Your task to perform on an android device: turn off notifications in google photos Image 0: 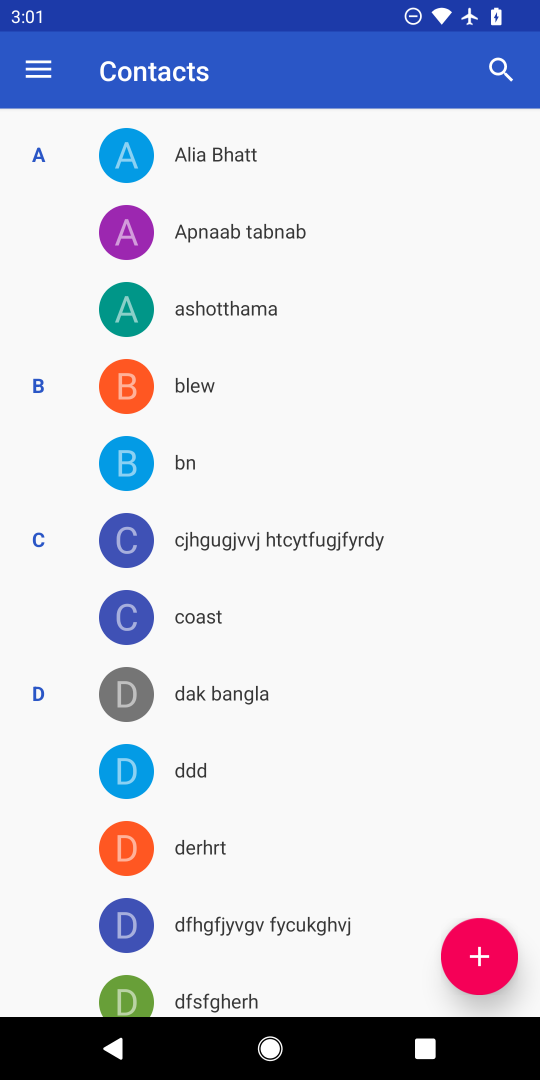
Step 0: press home button
Your task to perform on an android device: turn off notifications in google photos Image 1: 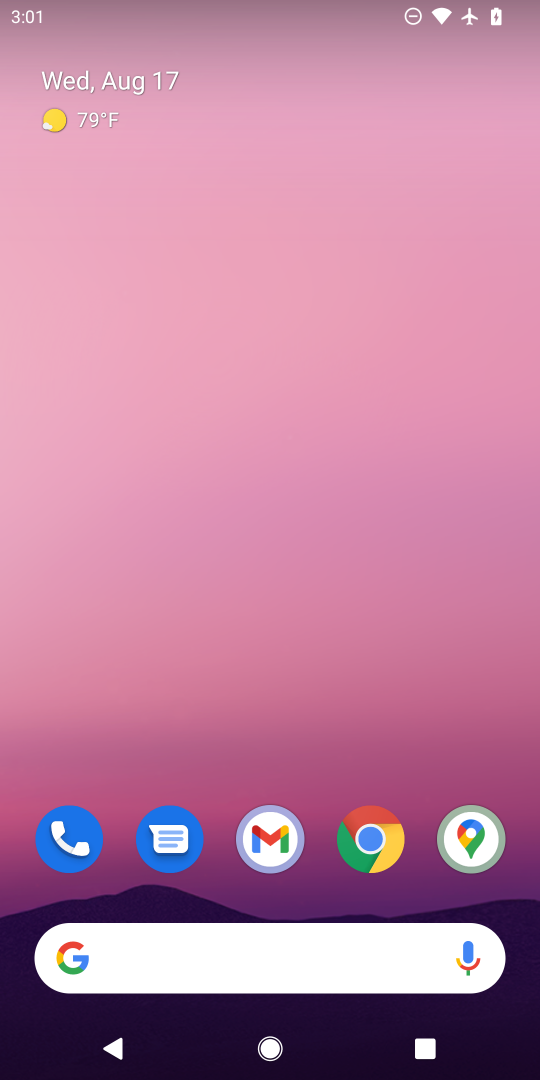
Step 1: drag from (314, 730) to (299, 123)
Your task to perform on an android device: turn off notifications in google photos Image 2: 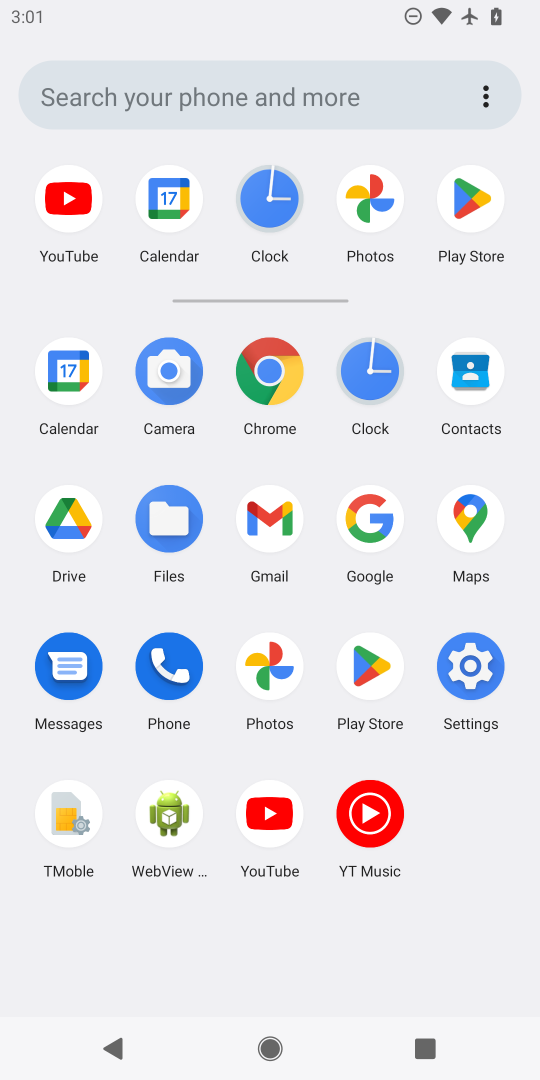
Step 2: click (267, 668)
Your task to perform on an android device: turn off notifications in google photos Image 3: 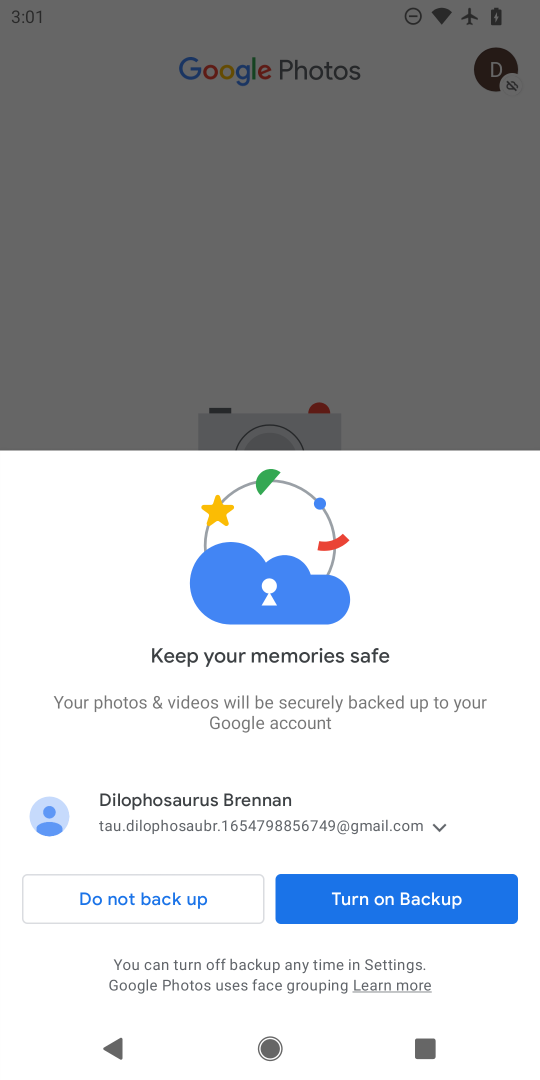
Step 3: click (172, 902)
Your task to perform on an android device: turn off notifications in google photos Image 4: 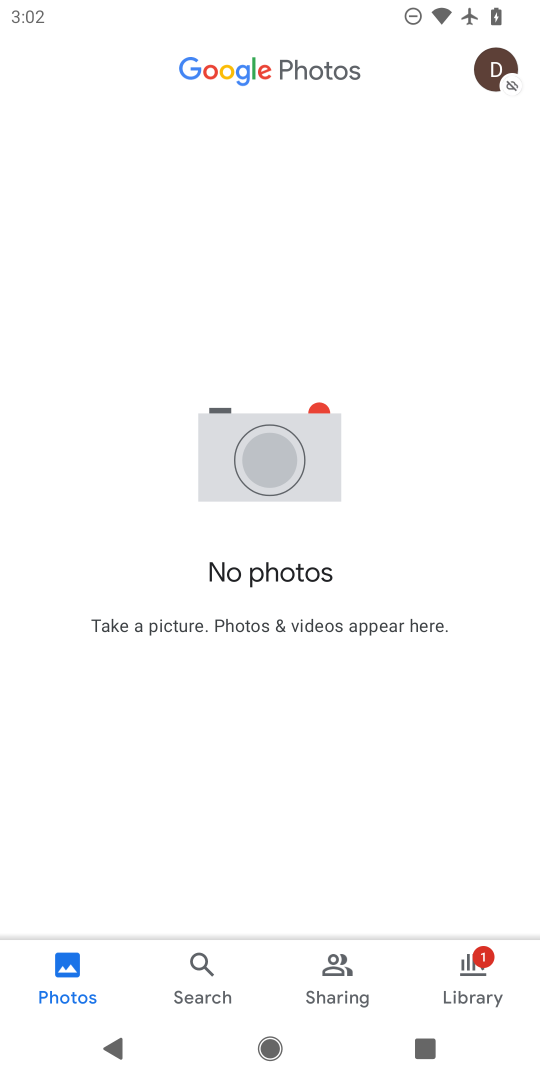
Step 4: click (501, 79)
Your task to perform on an android device: turn off notifications in google photos Image 5: 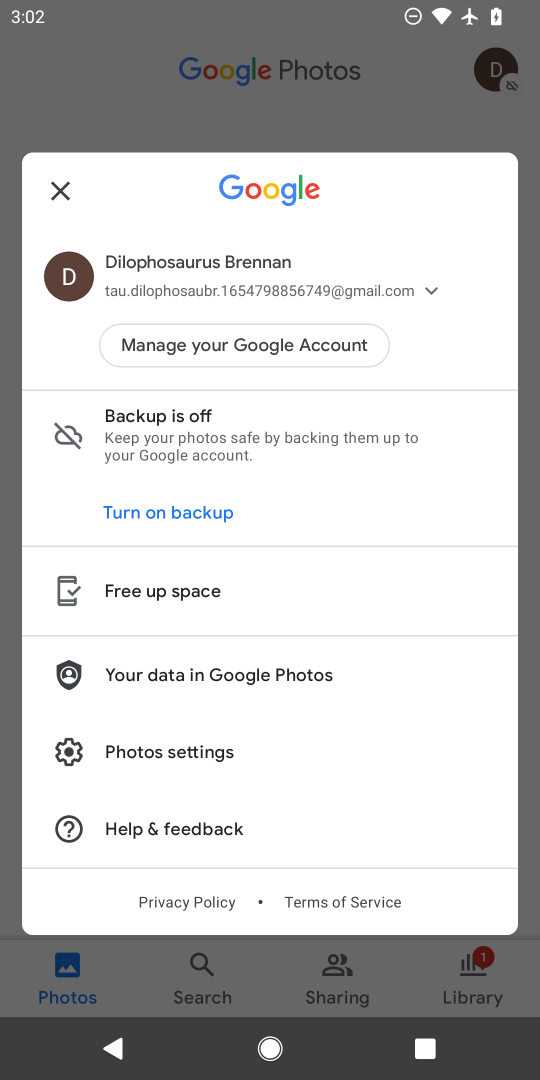
Step 5: click (155, 746)
Your task to perform on an android device: turn off notifications in google photos Image 6: 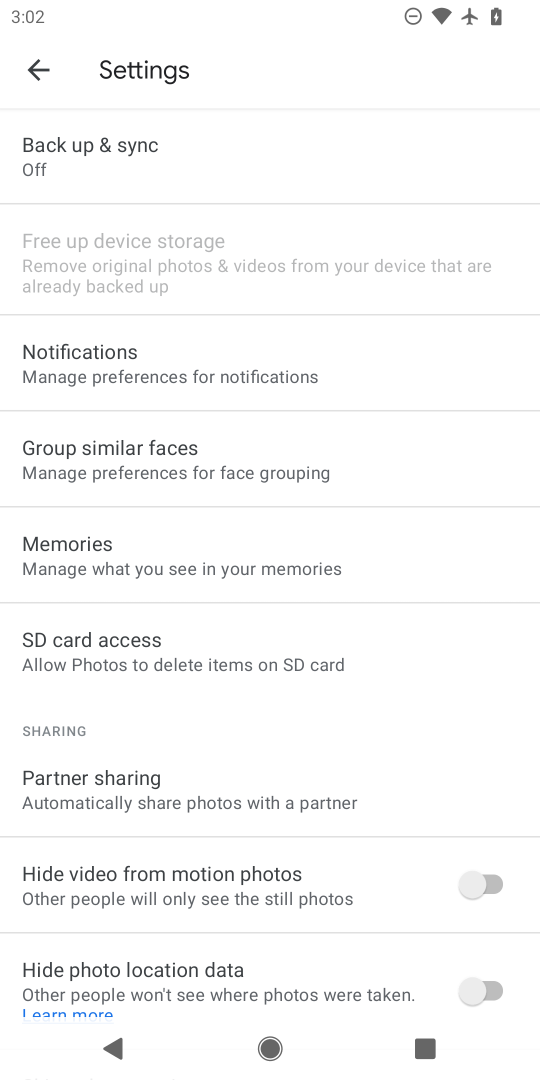
Step 6: click (107, 361)
Your task to perform on an android device: turn off notifications in google photos Image 7: 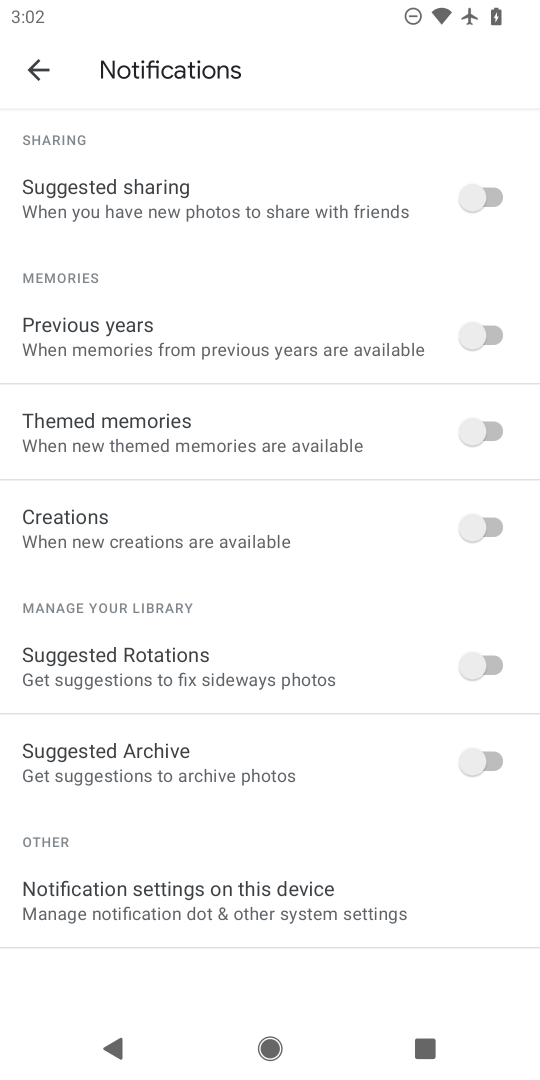
Step 7: drag from (180, 202) to (211, 814)
Your task to perform on an android device: turn off notifications in google photos Image 8: 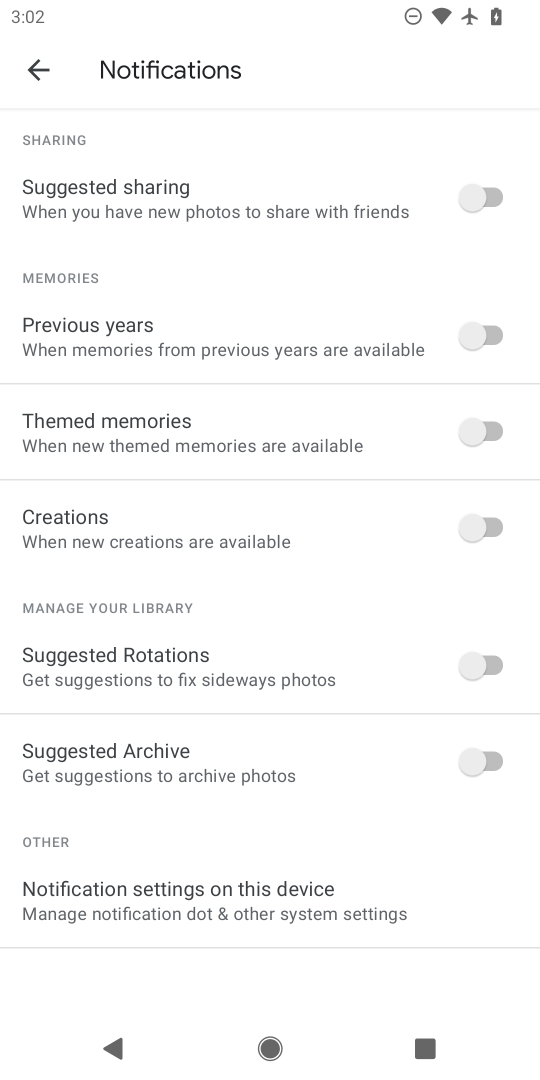
Step 8: drag from (218, 246) to (217, 967)
Your task to perform on an android device: turn off notifications in google photos Image 9: 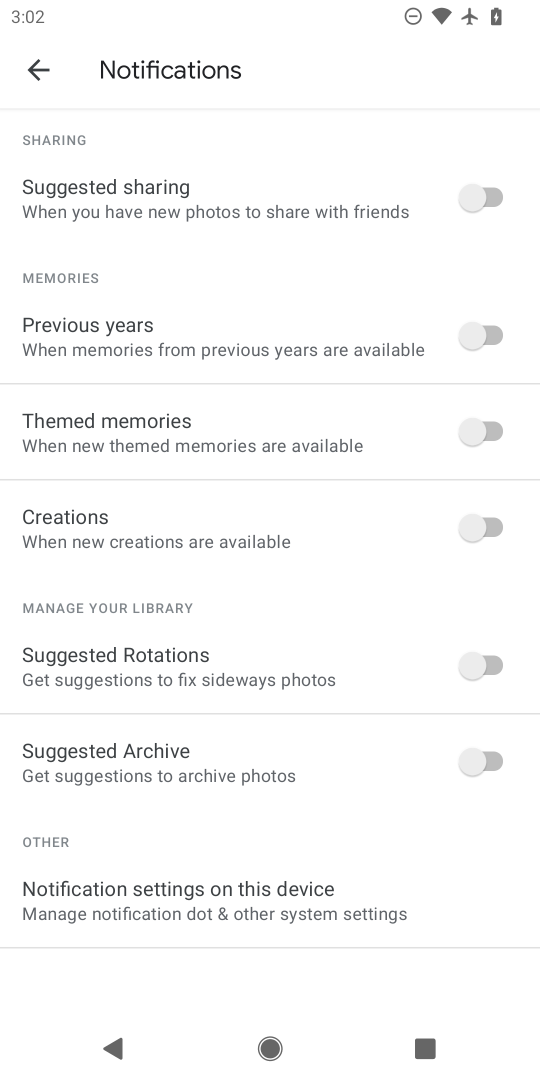
Step 9: click (192, 897)
Your task to perform on an android device: turn off notifications in google photos Image 10: 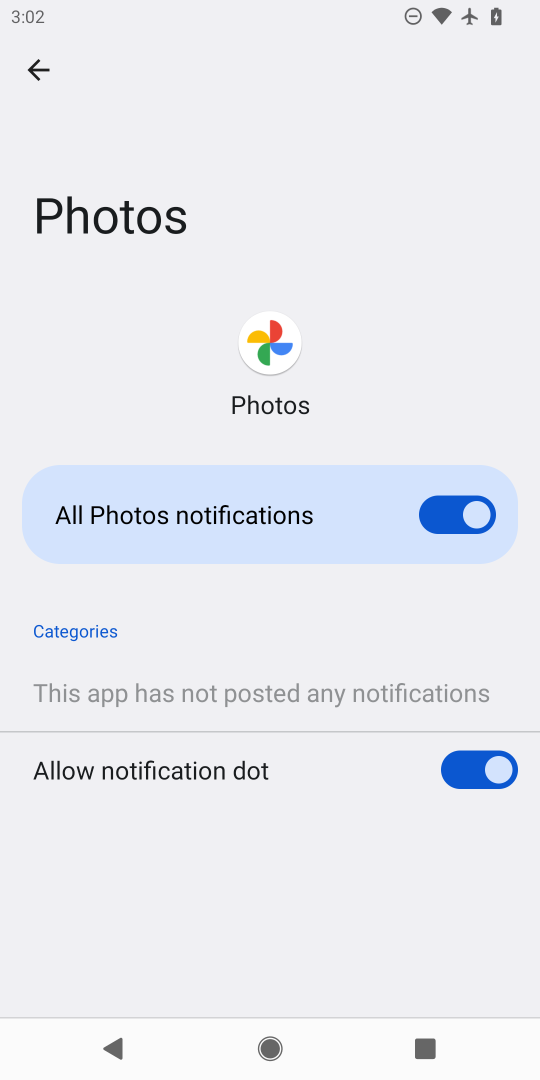
Step 10: click (453, 515)
Your task to perform on an android device: turn off notifications in google photos Image 11: 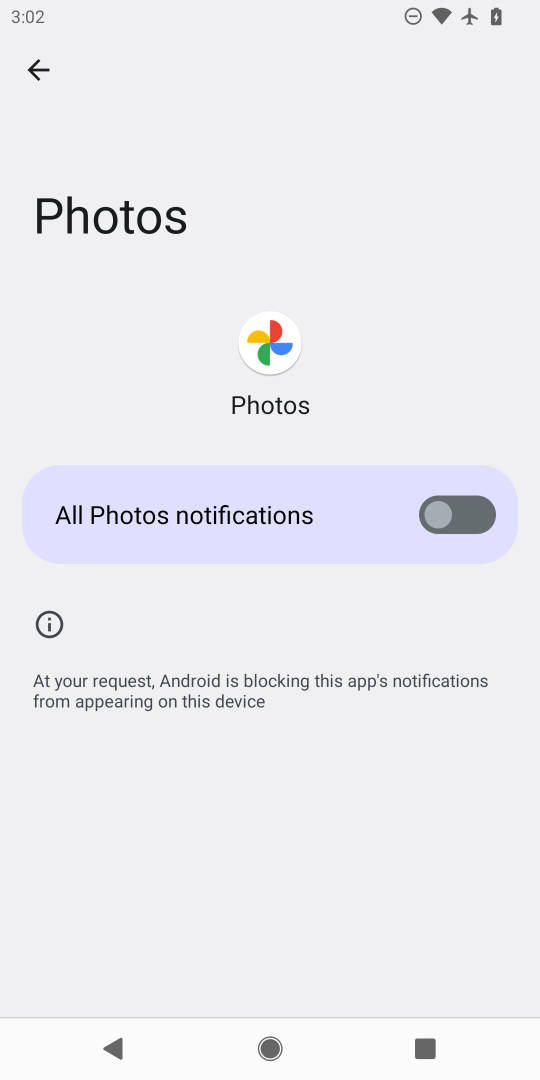
Step 11: task complete